Your task to perform on an android device: Find the nearest electronics store that's open tomorrow Image 0: 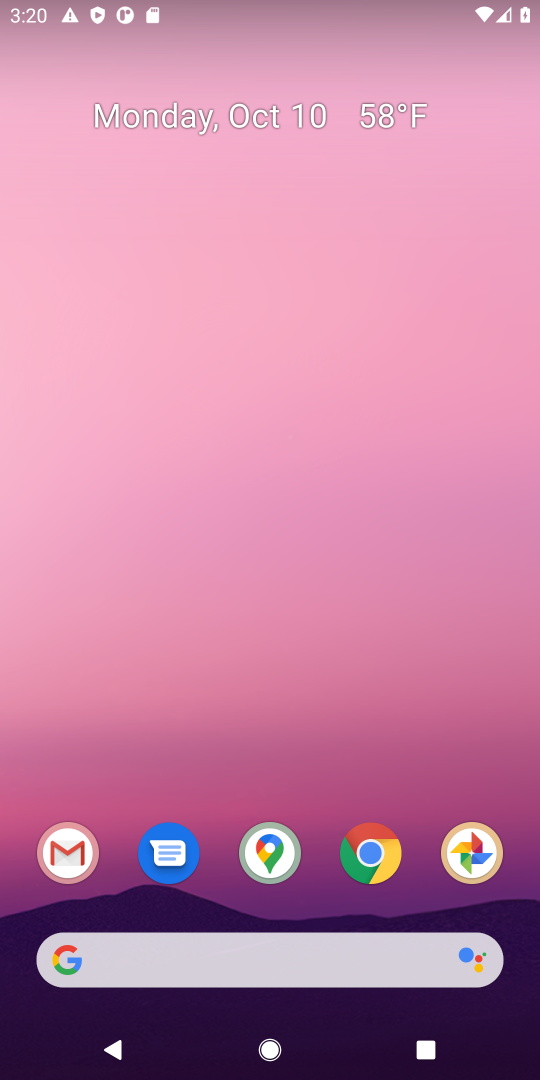
Step 0: drag from (300, 898) to (532, 52)
Your task to perform on an android device: Find the nearest electronics store that's open tomorrow Image 1: 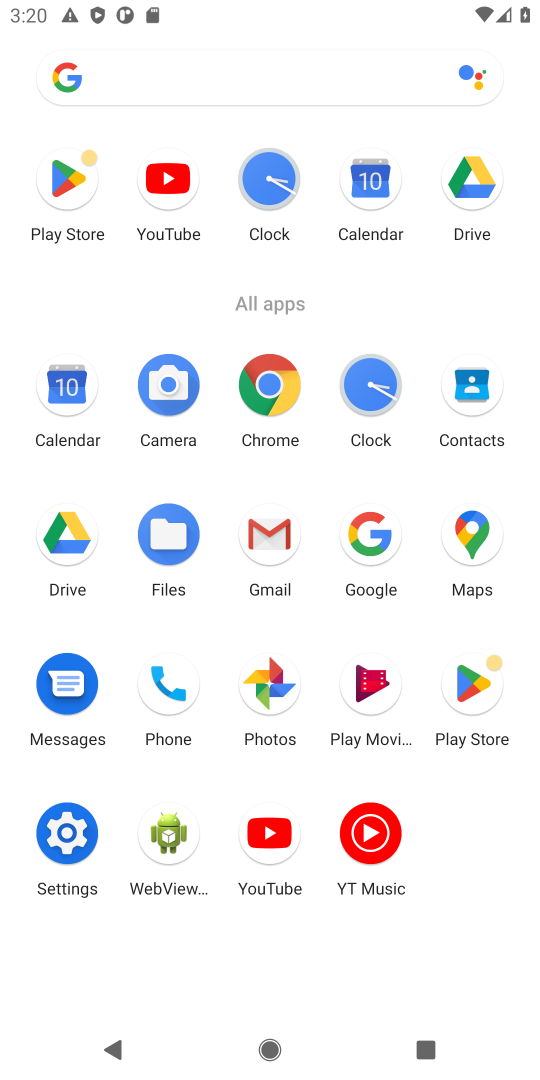
Step 1: click (378, 535)
Your task to perform on an android device: Find the nearest electronics store that's open tomorrow Image 2: 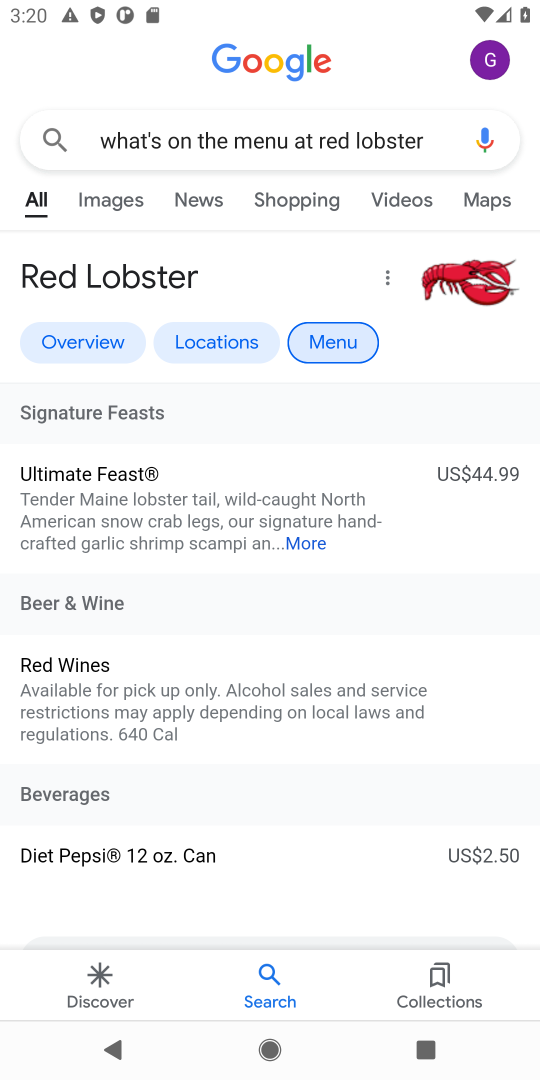
Step 2: click (435, 141)
Your task to perform on an android device: Find the nearest electronics store that's open tomorrow Image 3: 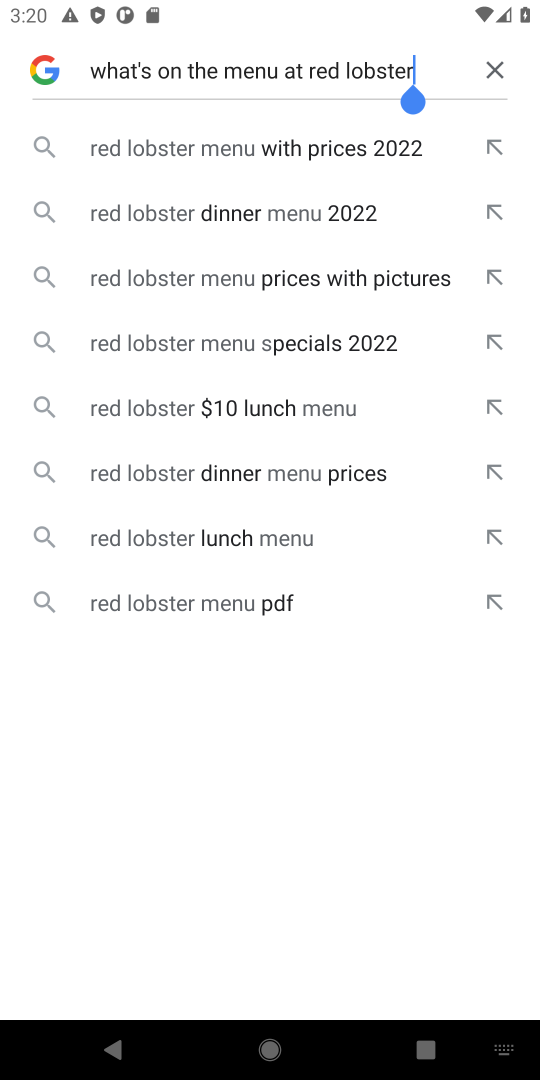
Step 3: click (498, 68)
Your task to perform on an android device: Find the nearest electronics store that's open tomorrow Image 4: 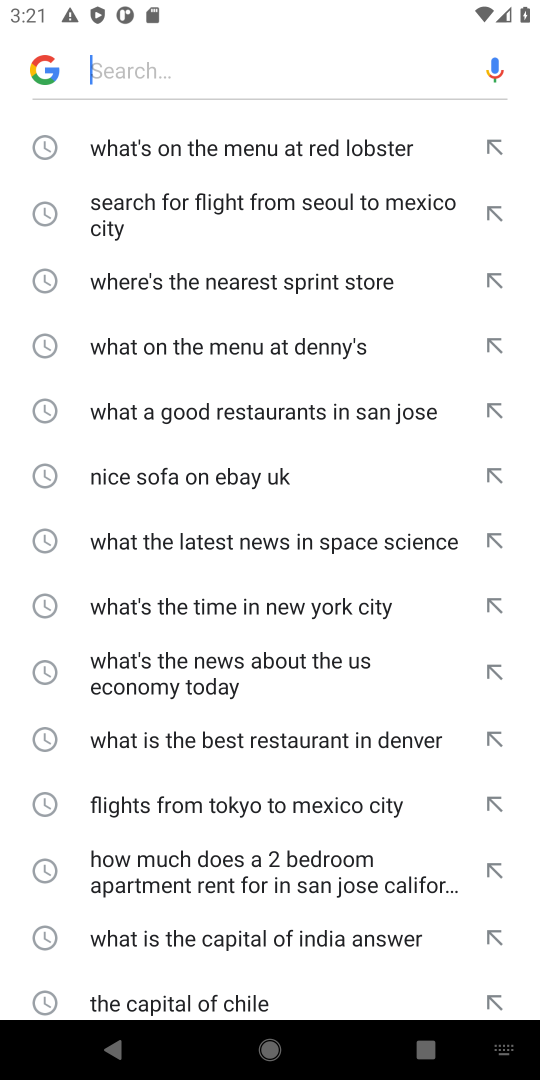
Step 4: click (183, 72)
Your task to perform on an android device: Find the nearest electronics store that's open tomorrow Image 5: 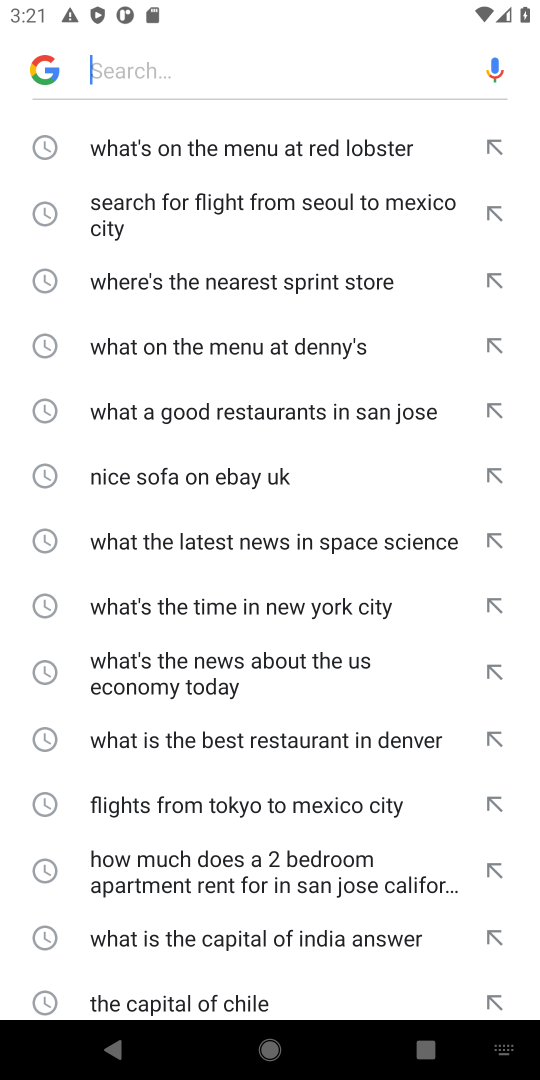
Step 5: type "nearest electronics store that's open tomorrow"
Your task to perform on an android device: Find the nearest electronics store that's open tomorrow Image 6: 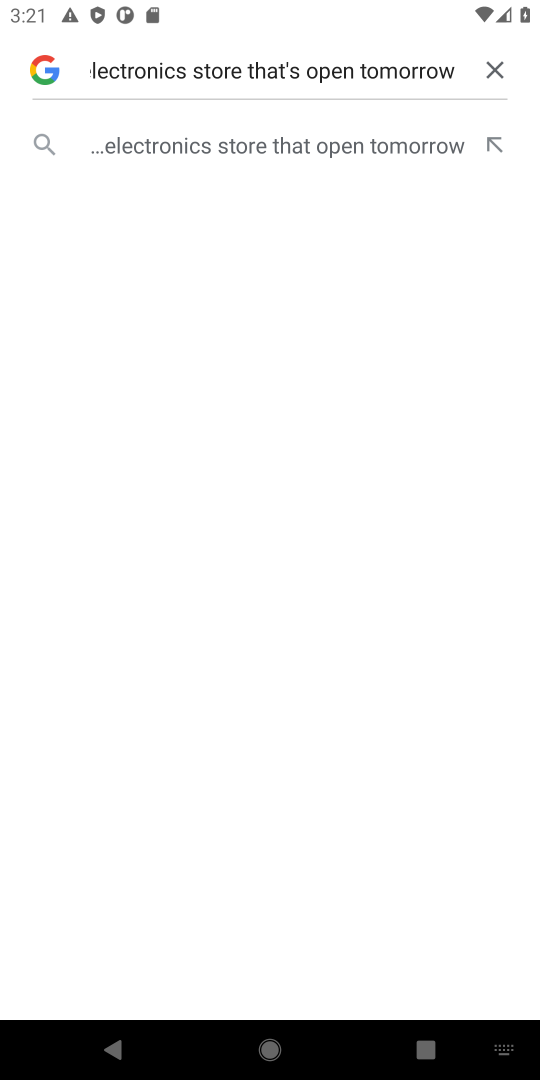
Step 6: click (231, 159)
Your task to perform on an android device: Find the nearest electronics store that's open tomorrow Image 7: 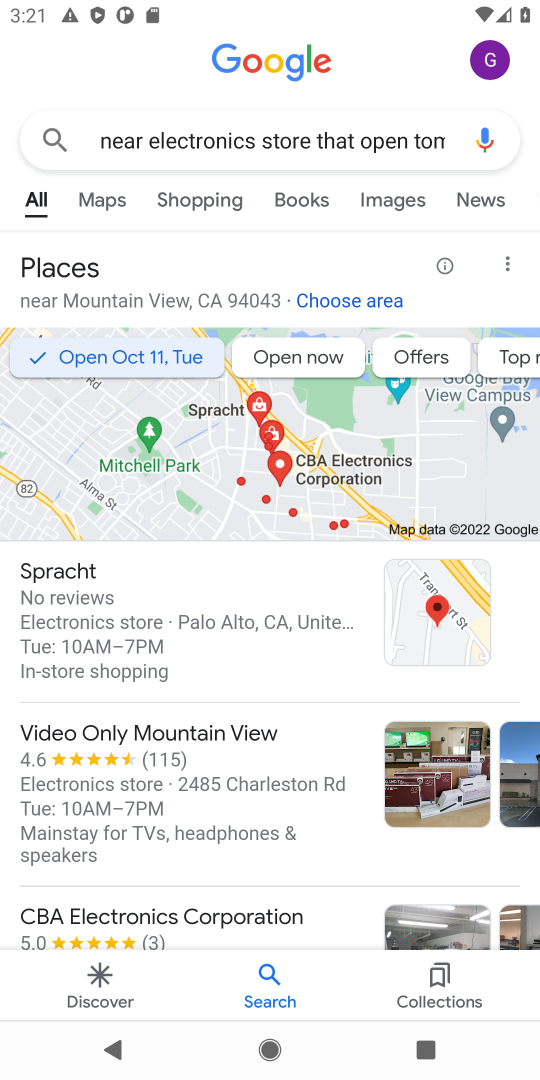
Step 7: task complete